Your task to perform on an android device: Go to eBay Image 0: 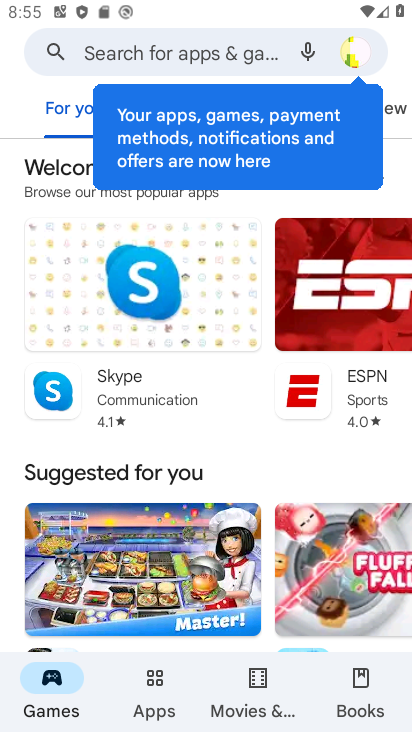
Step 0: press home button
Your task to perform on an android device: Go to eBay Image 1: 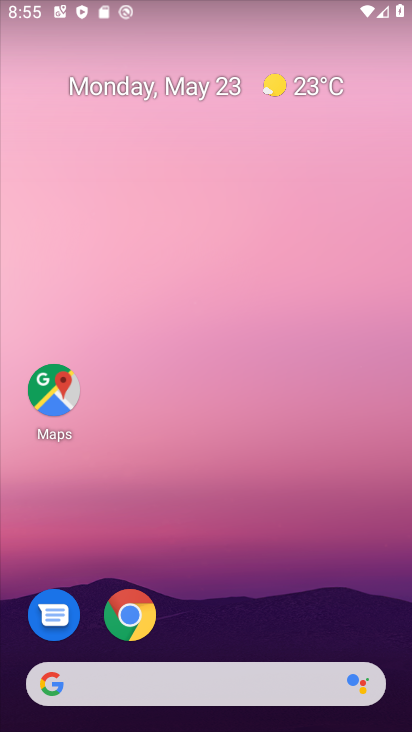
Step 1: click (129, 617)
Your task to perform on an android device: Go to eBay Image 2: 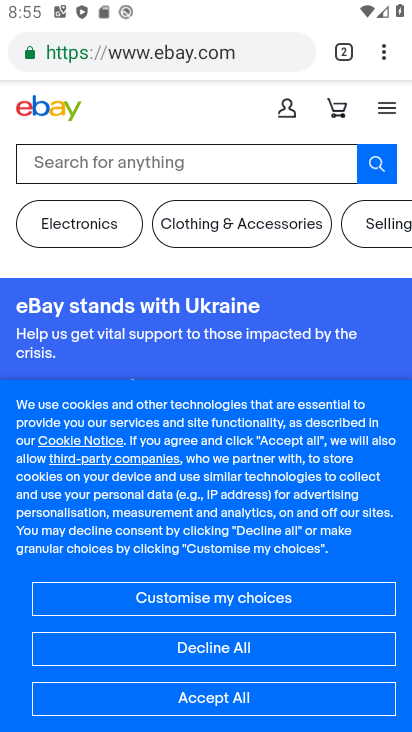
Step 2: click (223, 693)
Your task to perform on an android device: Go to eBay Image 3: 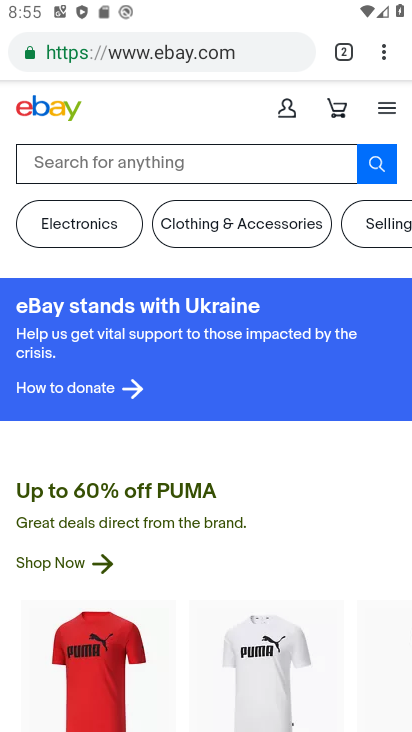
Step 3: task complete